Your task to perform on an android device: Show me recent news Image 0: 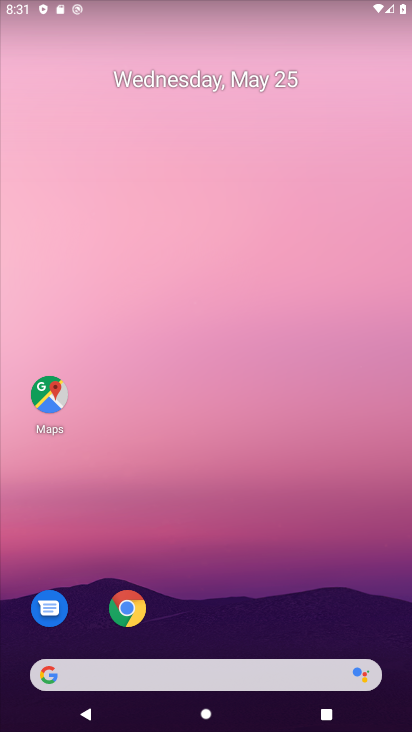
Step 0: drag from (255, 443) to (242, 62)
Your task to perform on an android device: Show me recent news Image 1: 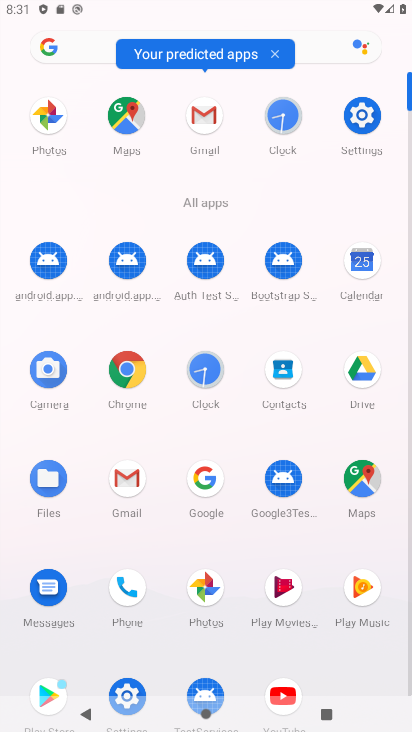
Step 1: click (208, 485)
Your task to perform on an android device: Show me recent news Image 2: 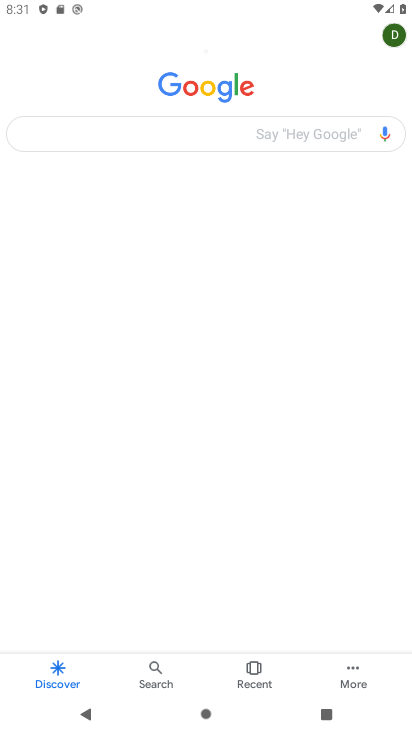
Step 2: click (196, 142)
Your task to perform on an android device: Show me recent news Image 3: 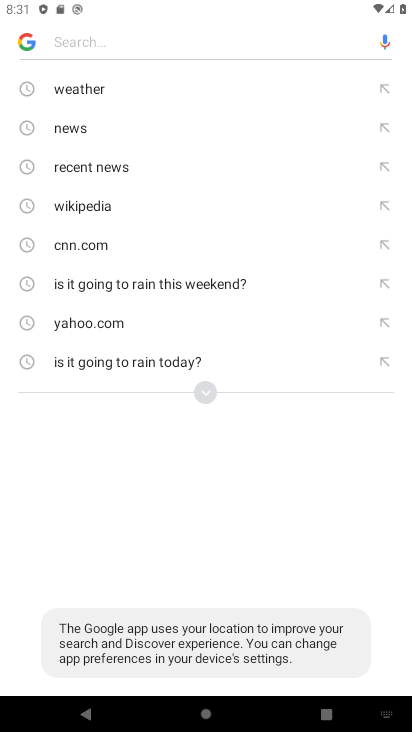
Step 3: click (110, 173)
Your task to perform on an android device: Show me recent news Image 4: 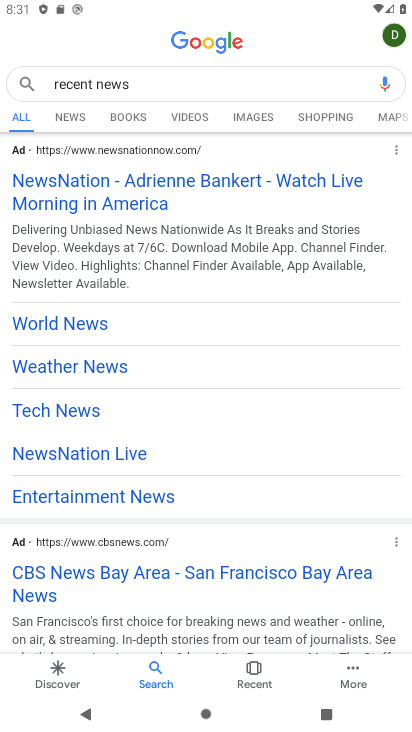
Step 4: click (74, 118)
Your task to perform on an android device: Show me recent news Image 5: 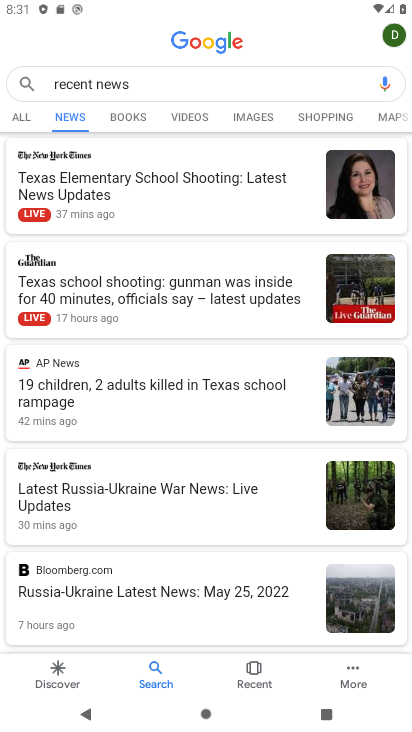
Step 5: task complete